Your task to perform on an android device: toggle location history Image 0: 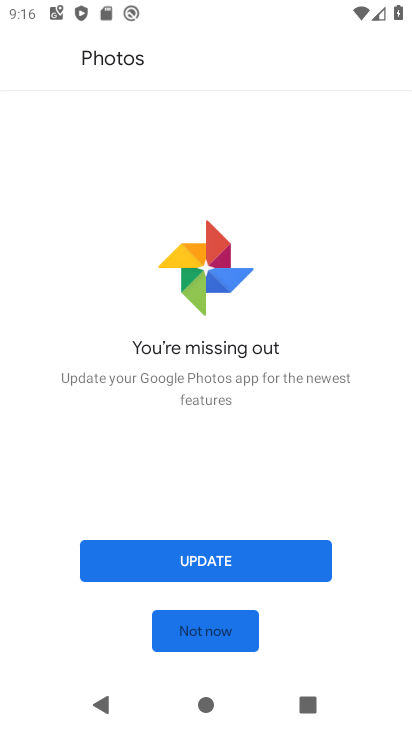
Step 0: press home button
Your task to perform on an android device: toggle location history Image 1: 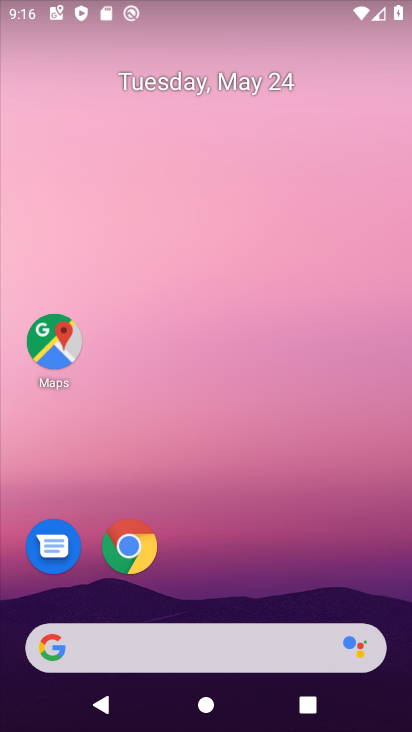
Step 1: drag from (243, 557) to (290, 50)
Your task to perform on an android device: toggle location history Image 2: 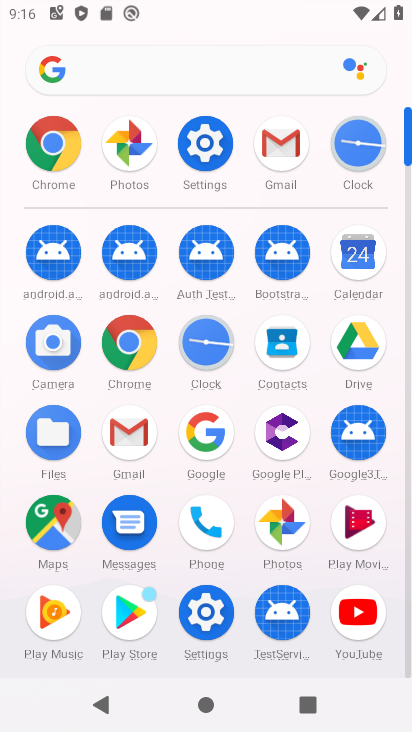
Step 2: click (220, 150)
Your task to perform on an android device: toggle location history Image 3: 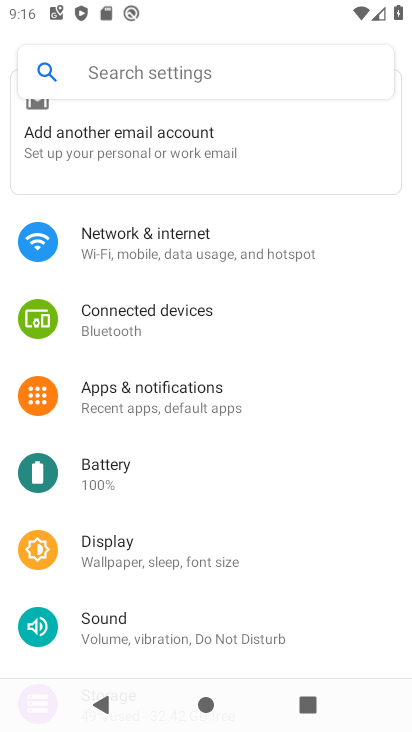
Step 3: drag from (189, 455) to (216, 156)
Your task to perform on an android device: toggle location history Image 4: 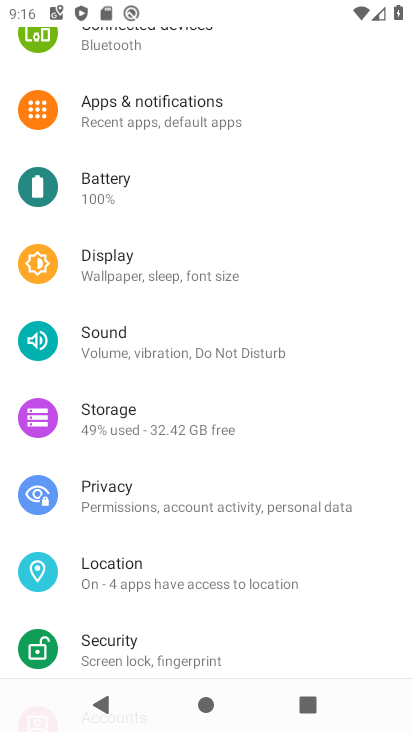
Step 4: click (220, 572)
Your task to perform on an android device: toggle location history Image 5: 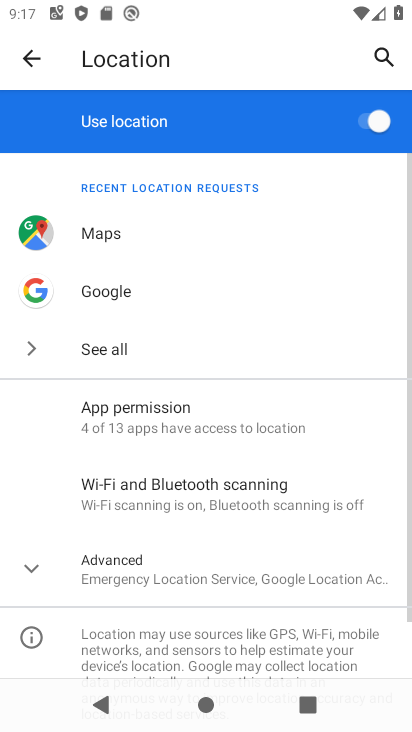
Step 5: click (28, 566)
Your task to perform on an android device: toggle location history Image 6: 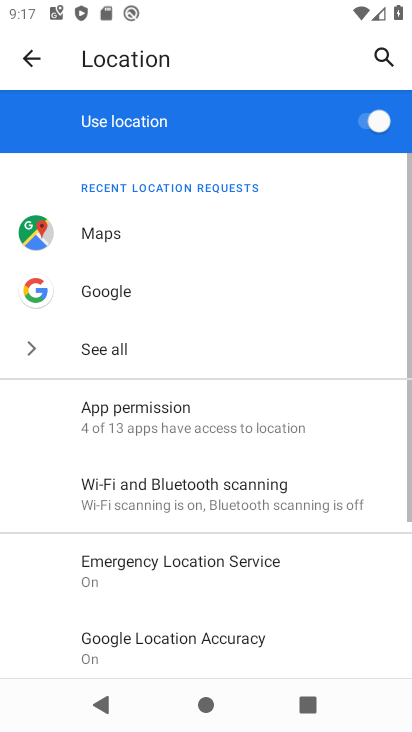
Step 6: drag from (259, 510) to (289, 211)
Your task to perform on an android device: toggle location history Image 7: 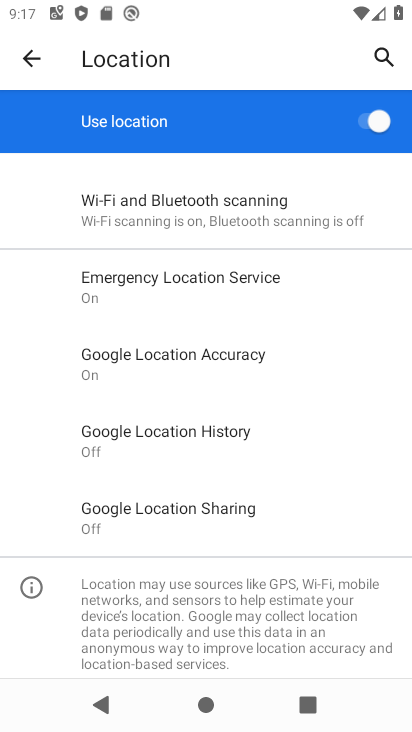
Step 7: click (233, 436)
Your task to perform on an android device: toggle location history Image 8: 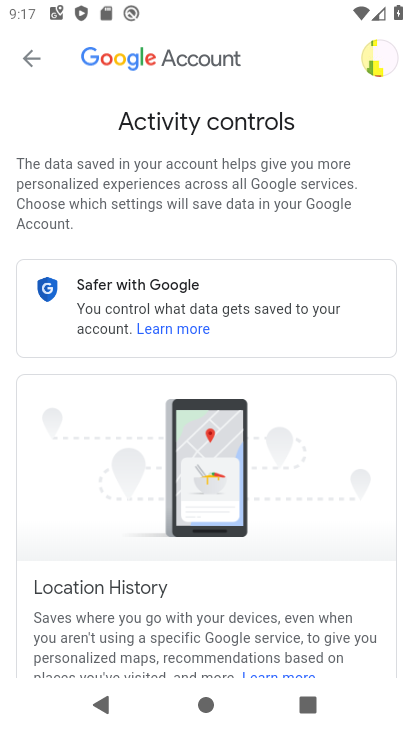
Step 8: drag from (294, 515) to (297, 204)
Your task to perform on an android device: toggle location history Image 9: 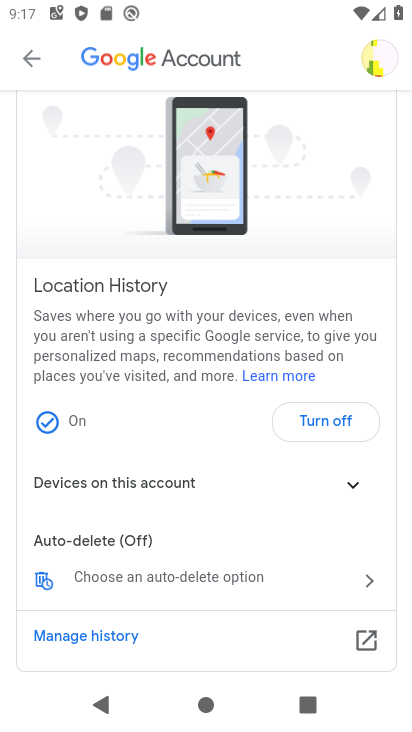
Step 9: click (327, 412)
Your task to perform on an android device: toggle location history Image 10: 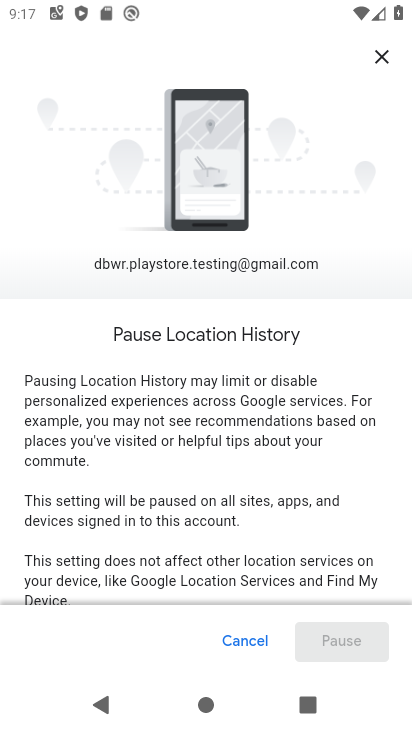
Step 10: drag from (313, 496) to (307, 119)
Your task to perform on an android device: toggle location history Image 11: 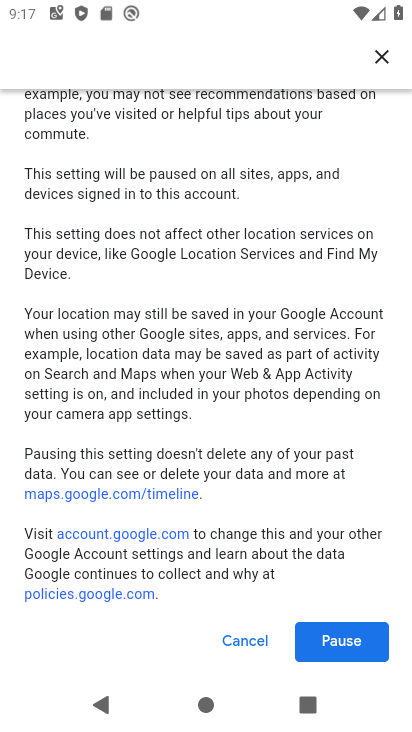
Step 11: click (340, 639)
Your task to perform on an android device: toggle location history Image 12: 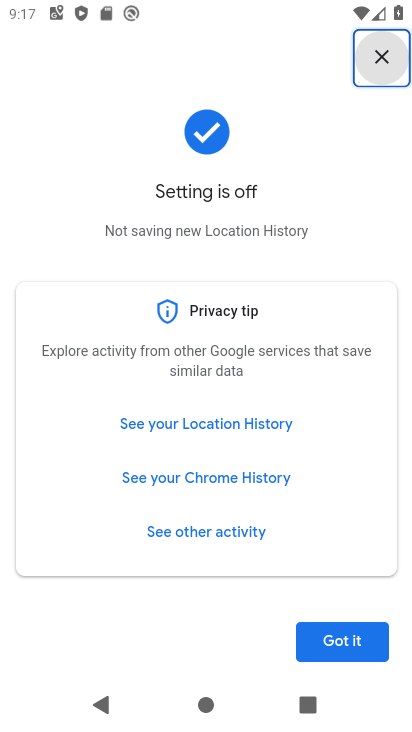
Step 12: click (340, 636)
Your task to perform on an android device: toggle location history Image 13: 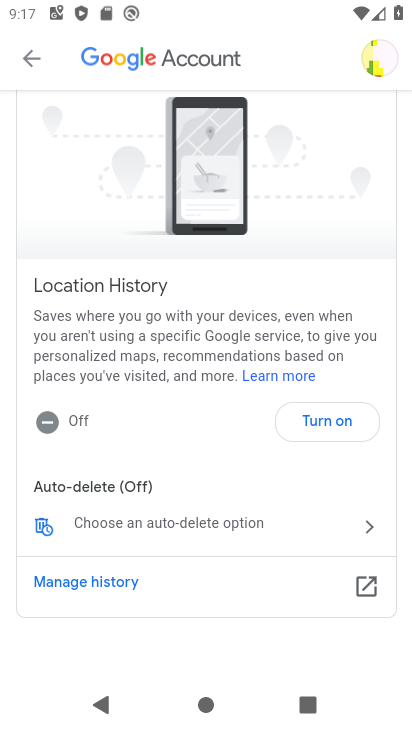
Step 13: task complete